Your task to perform on an android device: Search for Mexican restaurants on Maps Image 0: 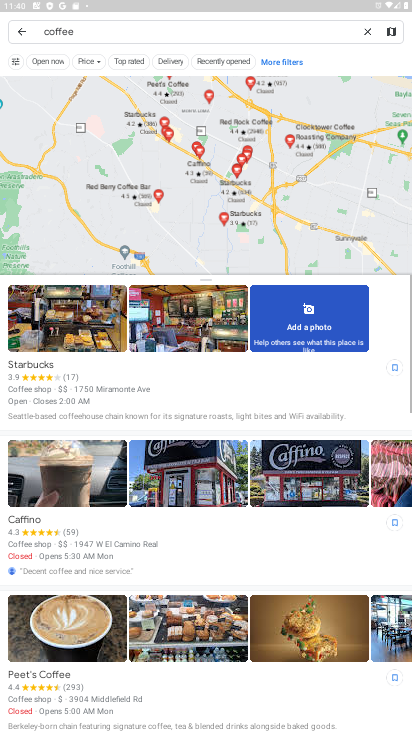
Step 0: press home button
Your task to perform on an android device: Search for Mexican restaurants on Maps Image 1: 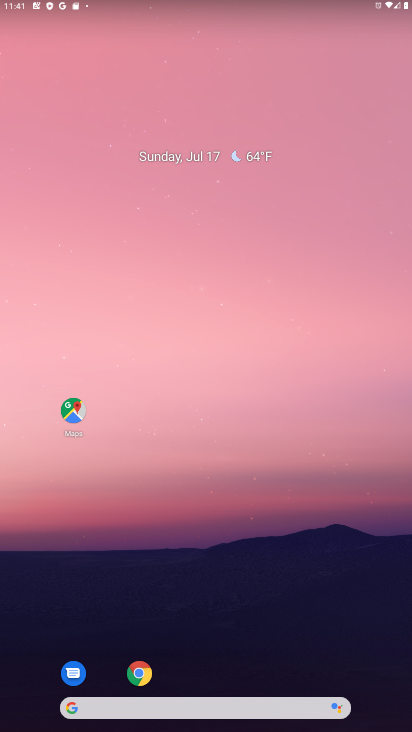
Step 1: click (77, 414)
Your task to perform on an android device: Search for Mexican restaurants on Maps Image 2: 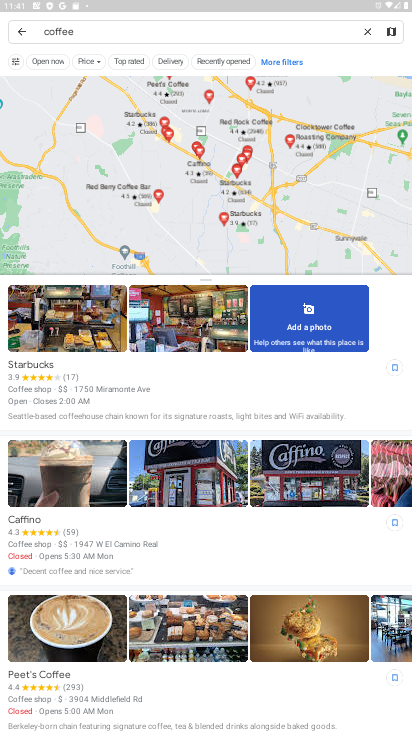
Step 2: click (333, 31)
Your task to perform on an android device: Search for Mexican restaurants on Maps Image 3: 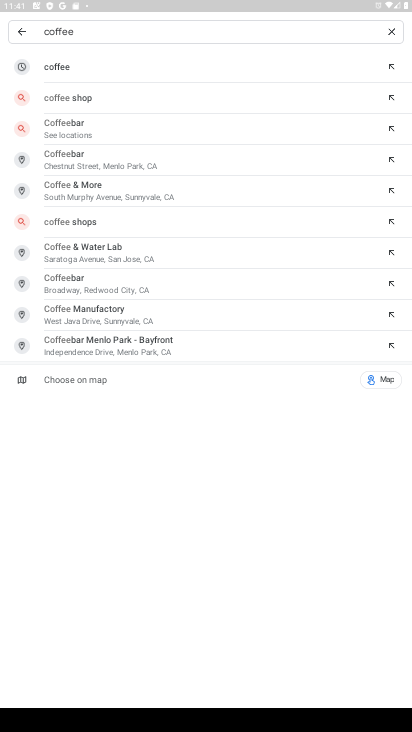
Step 3: click (393, 31)
Your task to perform on an android device: Search for Mexican restaurants on Maps Image 4: 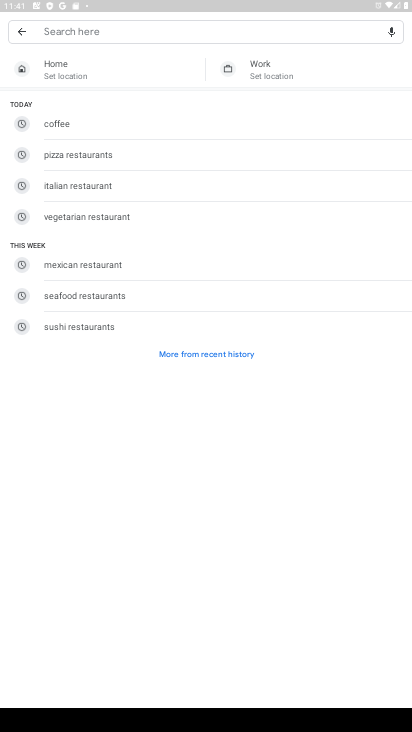
Step 4: click (113, 264)
Your task to perform on an android device: Search for Mexican restaurants on Maps Image 5: 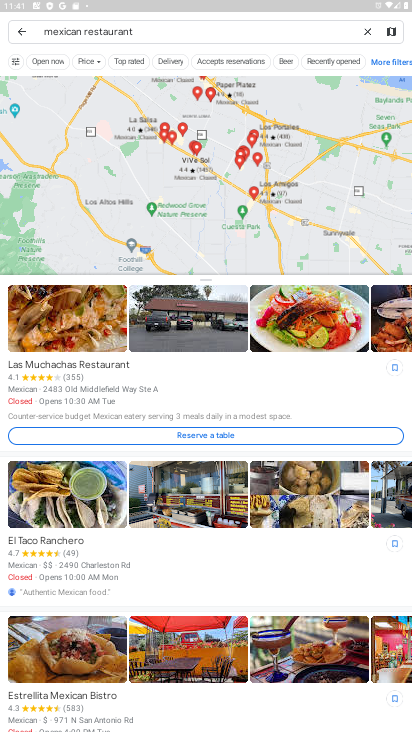
Step 5: task complete